Your task to perform on an android device: Open CNN.com Image 0: 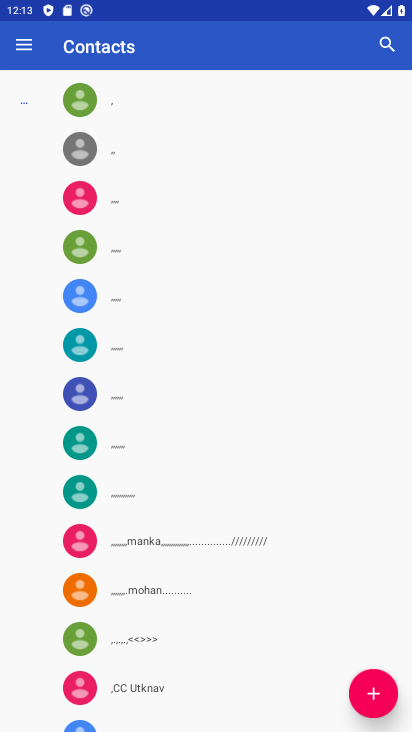
Step 0: drag from (203, 685) to (249, 165)
Your task to perform on an android device: Open CNN.com Image 1: 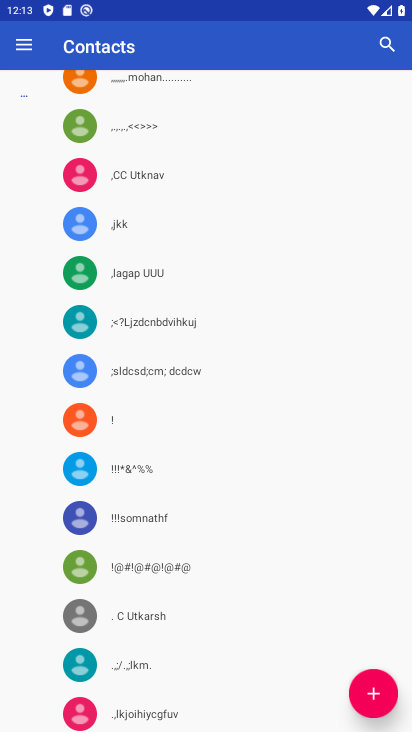
Step 1: press home button
Your task to perform on an android device: Open CNN.com Image 2: 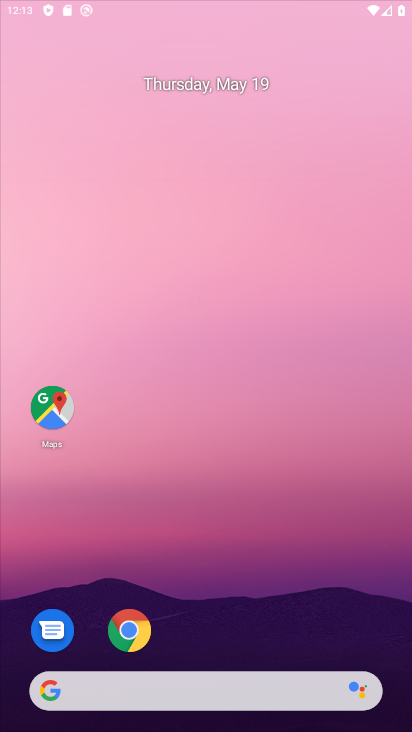
Step 2: drag from (220, 604) to (248, 58)
Your task to perform on an android device: Open CNN.com Image 3: 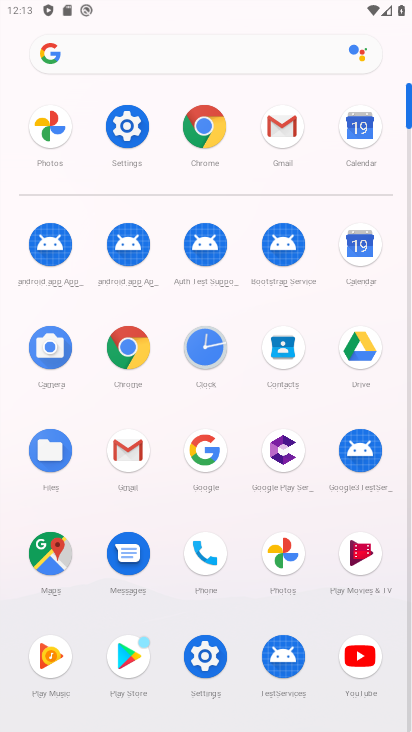
Step 3: click (191, 49)
Your task to perform on an android device: Open CNN.com Image 4: 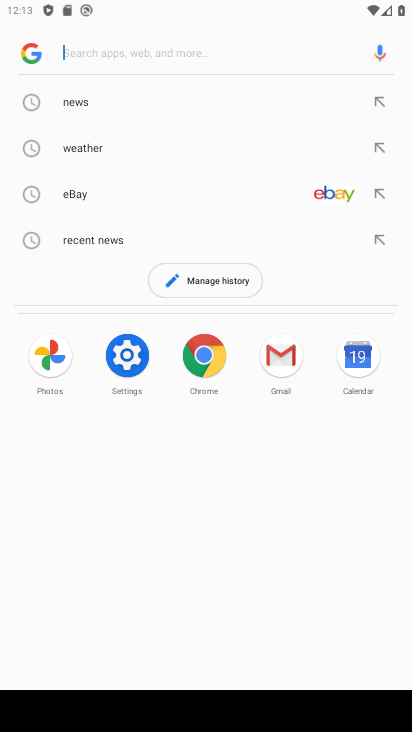
Step 4: type "cnn.com"
Your task to perform on an android device: Open CNN.com Image 5: 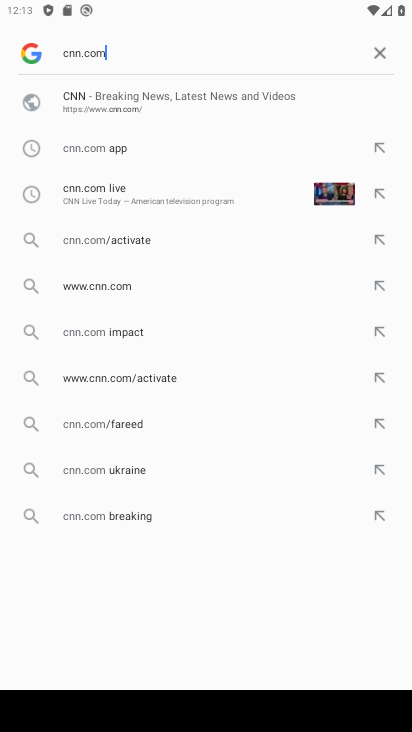
Step 5: click (119, 109)
Your task to perform on an android device: Open CNN.com Image 6: 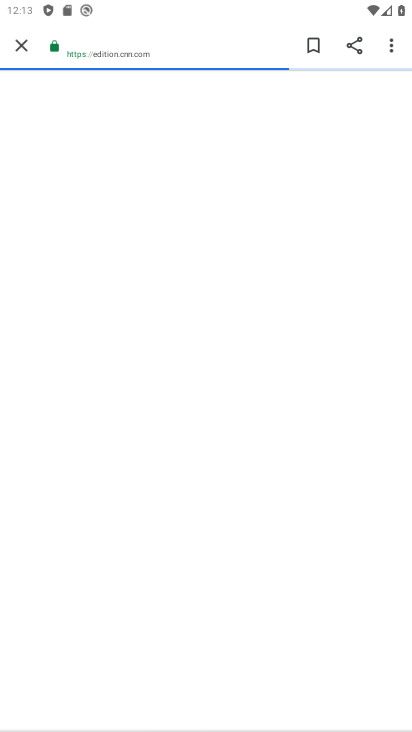
Step 6: task complete